Your task to perform on an android device: turn off improve location accuracy Image 0: 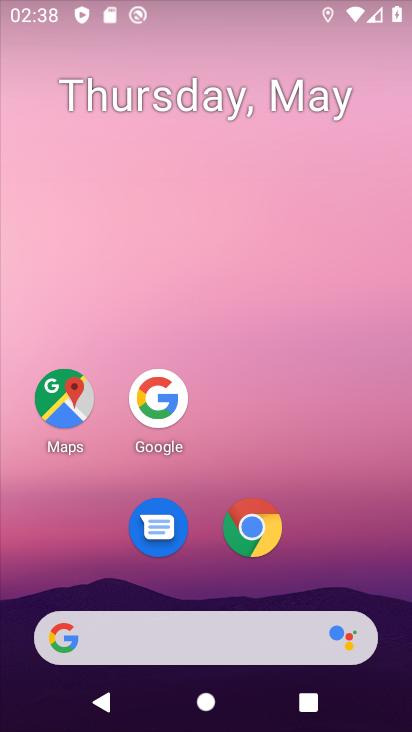
Step 0: click (268, 27)
Your task to perform on an android device: turn off improve location accuracy Image 1: 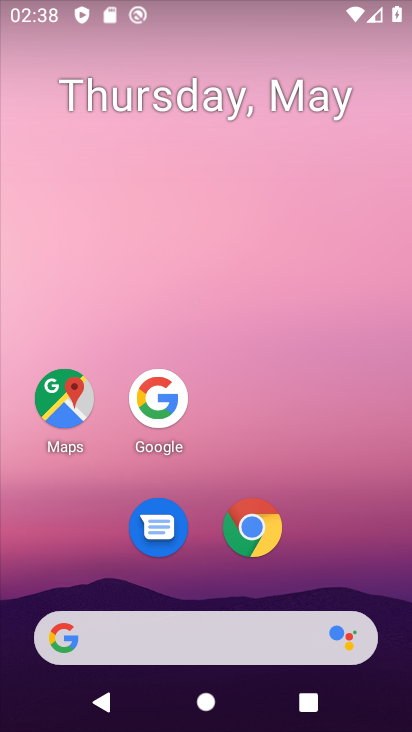
Step 1: drag from (212, 563) to (241, 187)
Your task to perform on an android device: turn off improve location accuracy Image 2: 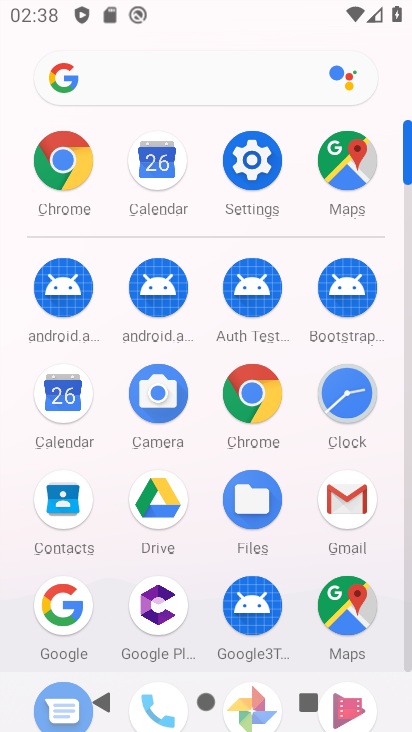
Step 2: click (248, 154)
Your task to perform on an android device: turn off improve location accuracy Image 3: 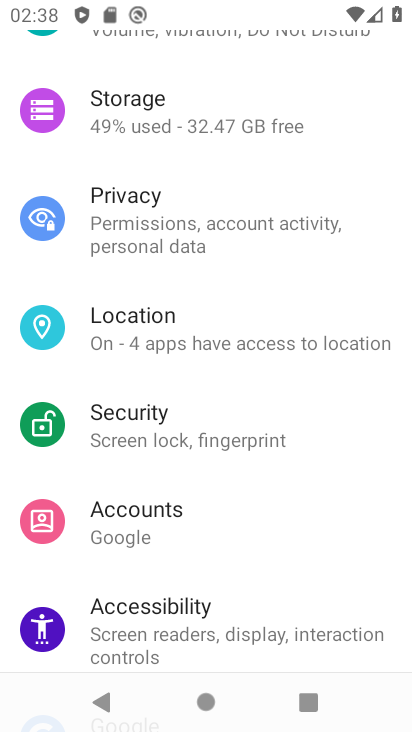
Step 3: click (175, 334)
Your task to perform on an android device: turn off improve location accuracy Image 4: 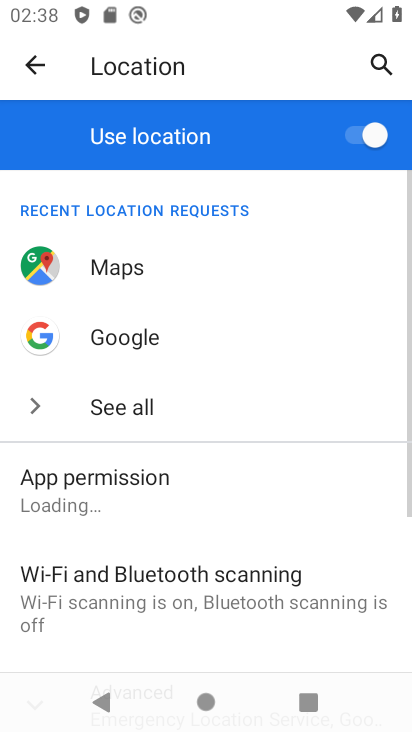
Step 4: drag from (231, 592) to (341, 119)
Your task to perform on an android device: turn off improve location accuracy Image 5: 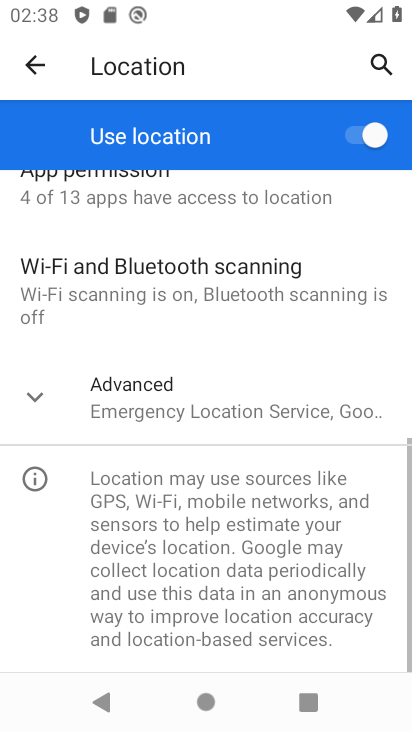
Step 5: click (193, 388)
Your task to perform on an android device: turn off improve location accuracy Image 6: 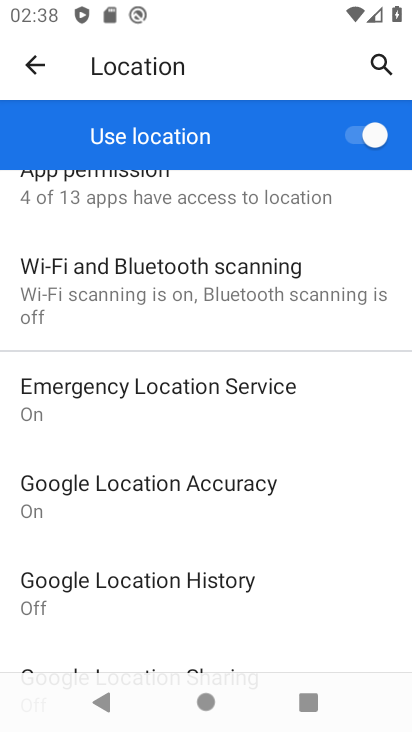
Step 6: click (189, 515)
Your task to perform on an android device: turn off improve location accuracy Image 7: 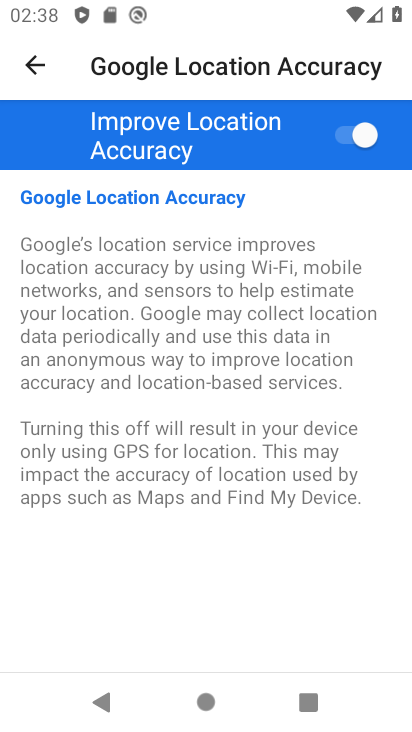
Step 7: click (337, 142)
Your task to perform on an android device: turn off improve location accuracy Image 8: 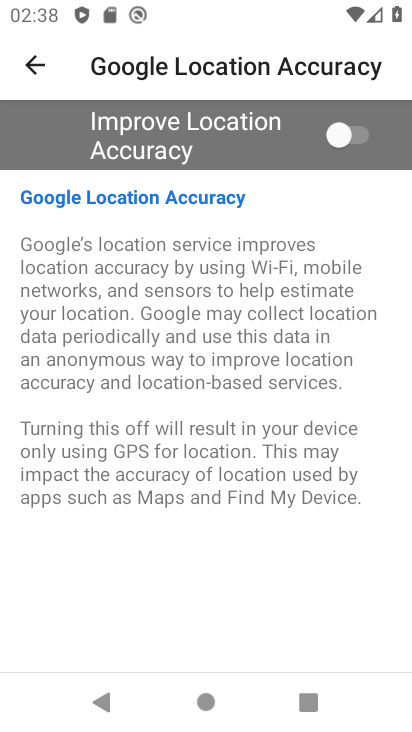
Step 8: task complete